Your task to perform on an android device: toggle notifications settings in the gmail app Image 0: 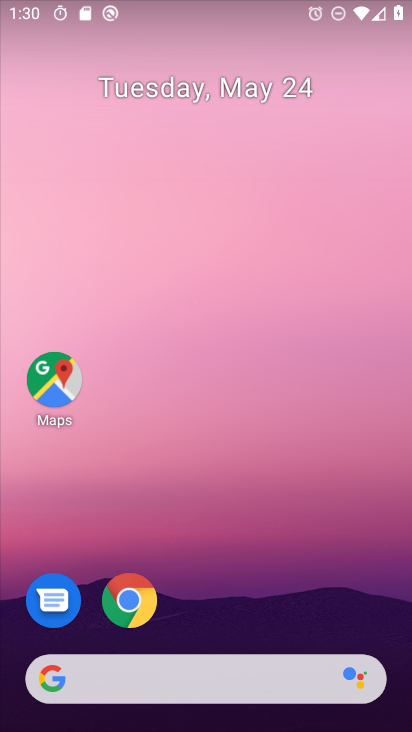
Step 0: drag from (275, 509) to (269, 240)
Your task to perform on an android device: toggle notifications settings in the gmail app Image 1: 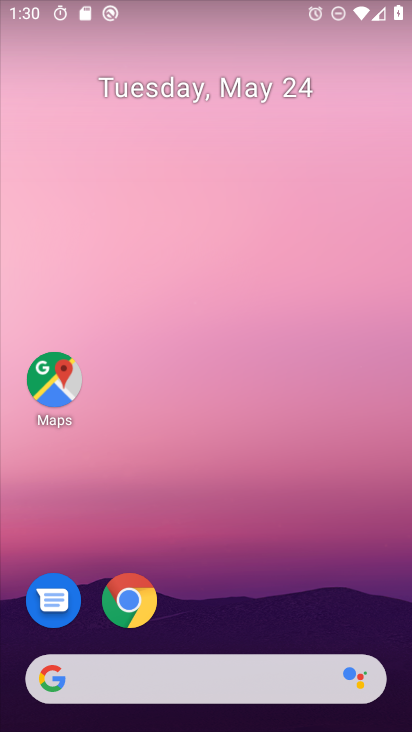
Step 1: drag from (270, 546) to (232, 57)
Your task to perform on an android device: toggle notifications settings in the gmail app Image 2: 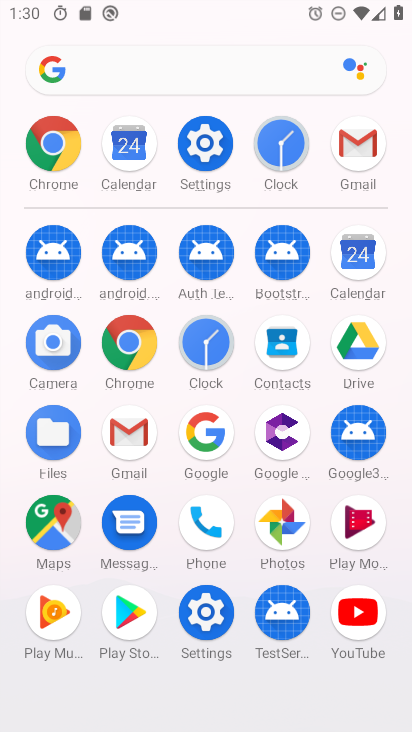
Step 2: click (356, 145)
Your task to perform on an android device: toggle notifications settings in the gmail app Image 3: 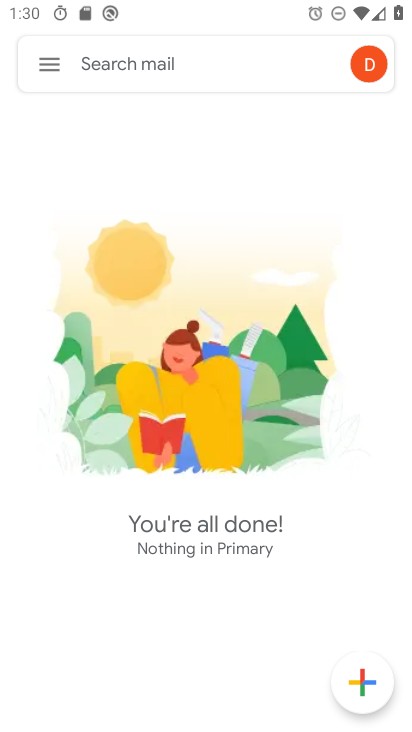
Step 3: click (48, 52)
Your task to perform on an android device: toggle notifications settings in the gmail app Image 4: 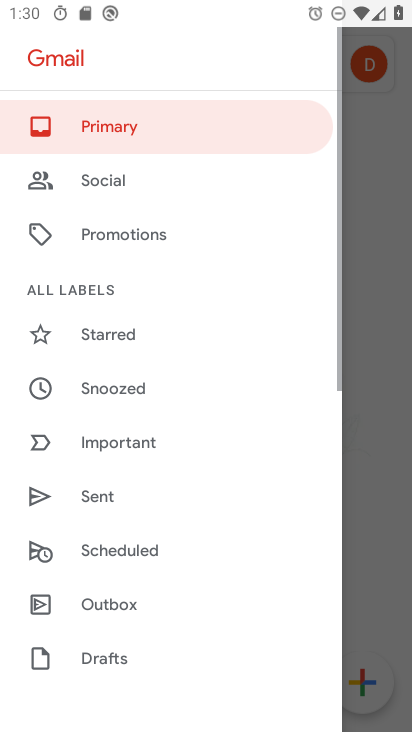
Step 4: drag from (175, 643) to (198, 172)
Your task to perform on an android device: toggle notifications settings in the gmail app Image 5: 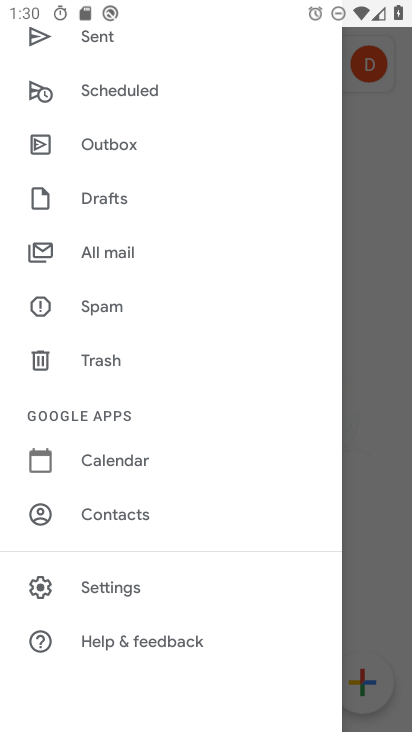
Step 5: click (118, 579)
Your task to perform on an android device: toggle notifications settings in the gmail app Image 6: 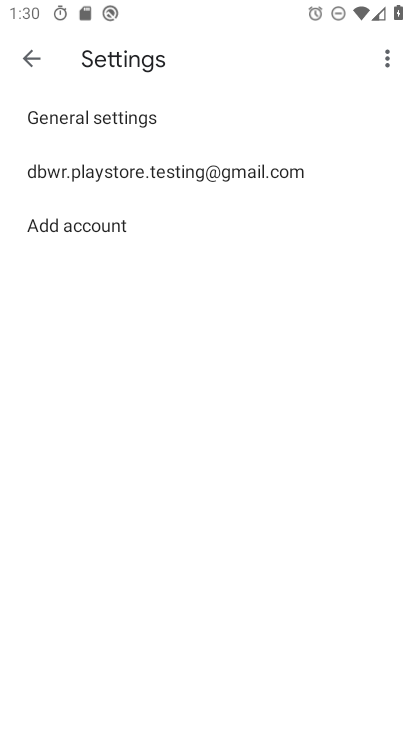
Step 6: click (128, 164)
Your task to perform on an android device: toggle notifications settings in the gmail app Image 7: 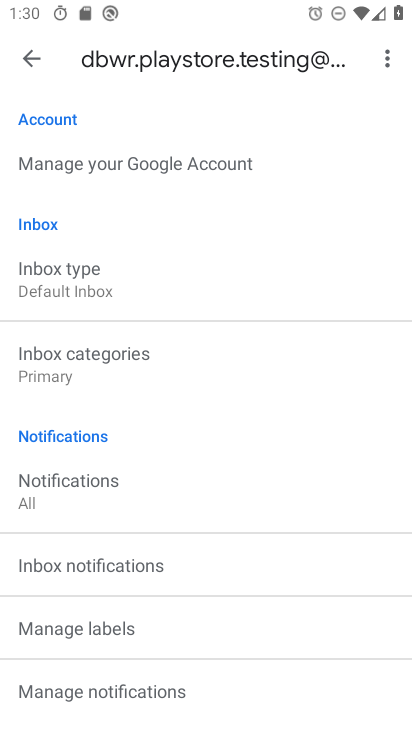
Step 7: drag from (126, 450) to (223, 173)
Your task to perform on an android device: toggle notifications settings in the gmail app Image 8: 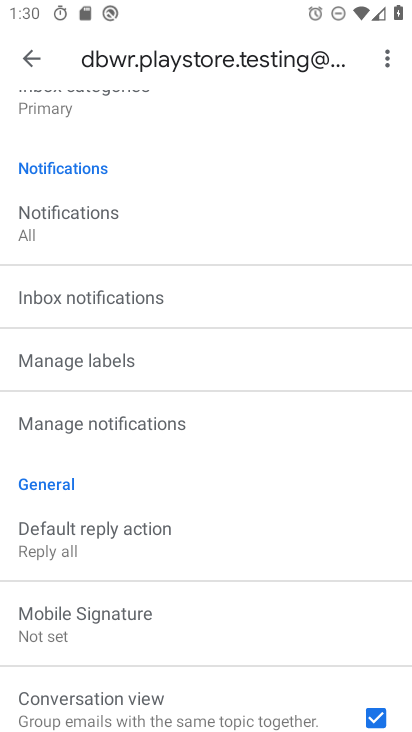
Step 8: click (123, 424)
Your task to perform on an android device: toggle notifications settings in the gmail app Image 9: 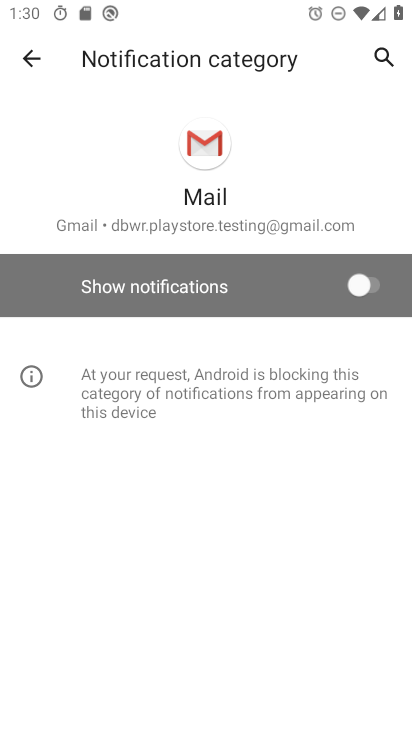
Step 9: click (331, 281)
Your task to perform on an android device: toggle notifications settings in the gmail app Image 10: 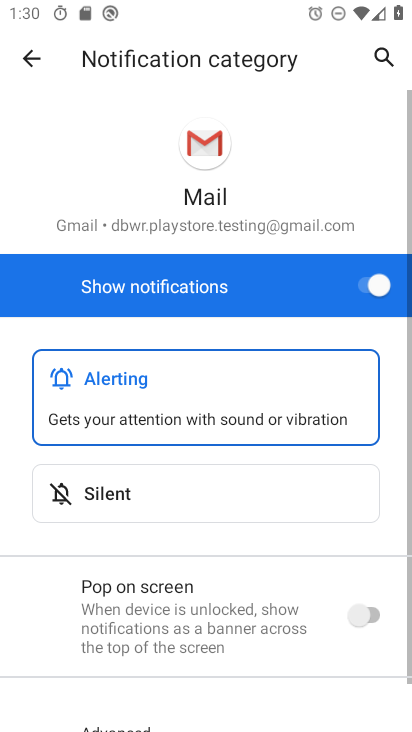
Step 10: task complete